Your task to perform on an android device: search for starred emails in the gmail app Image 0: 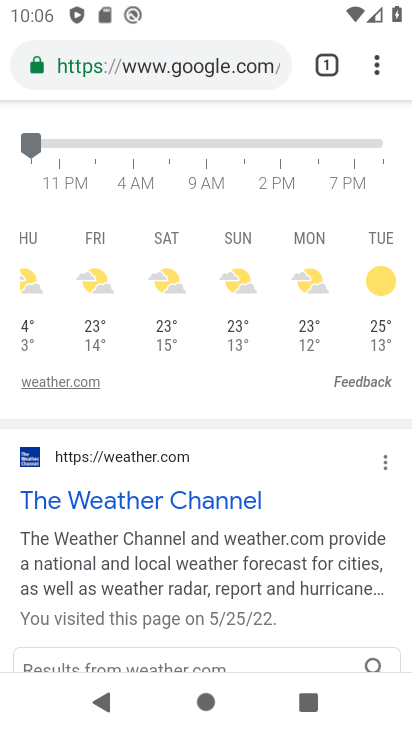
Step 0: press home button
Your task to perform on an android device: search for starred emails in the gmail app Image 1: 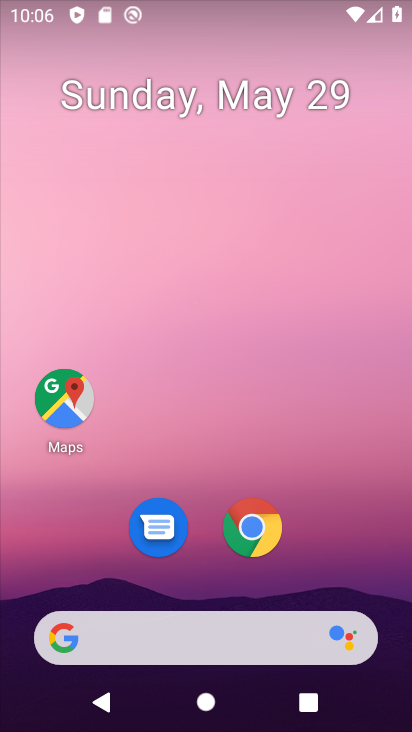
Step 1: drag from (347, 487) to (355, 154)
Your task to perform on an android device: search for starred emails in the gmail app Image 2: 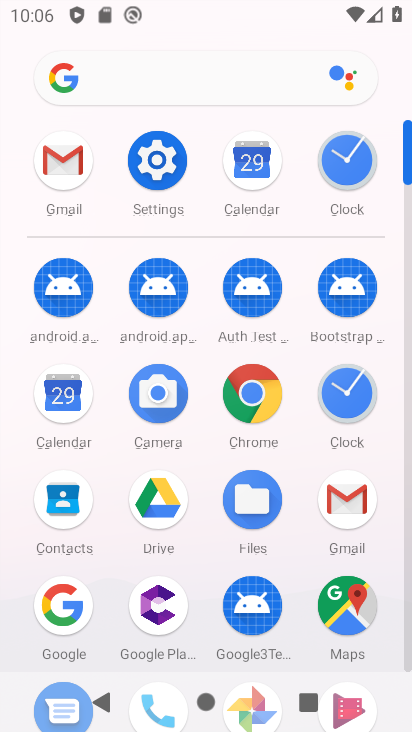
Step 2: click (48, 158)
Your task to perform on an android device: search for starred emails in the gmail app Image 3: 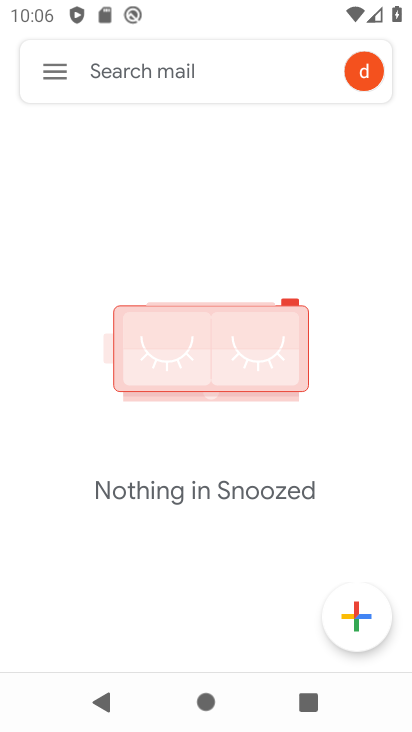
Step 3: click (65, 59)
Your task to perform on an android device: search for starred emails in the gmail app Image 4: 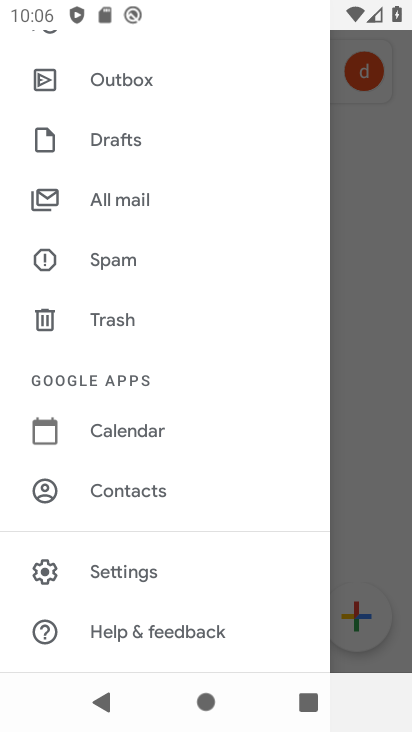
Step 4: drag from (168, 241) to (190, 616)
Your task to perform on an android device: search for starred emails in the gmail app Image 5: 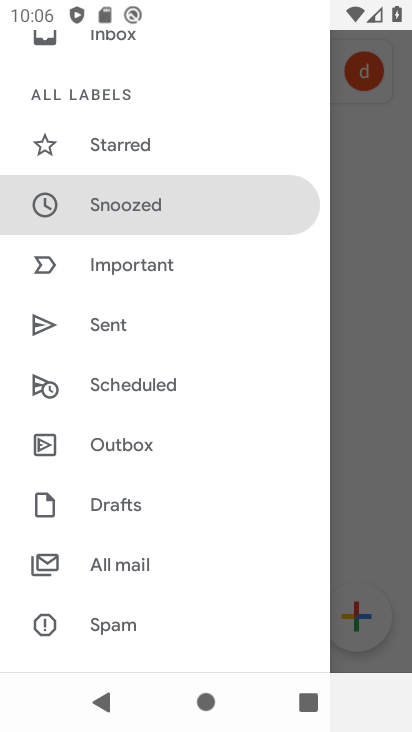
Step 5: click (141, 127)
Your task to perform on an android device: search for starred emails in the gmail app Image 6: 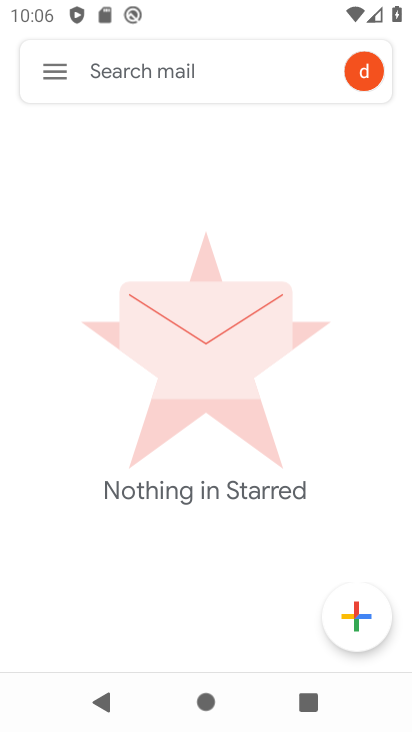
Step 6: task complete